Your task to perform on an android device: What's the weather going to be tomorrow? Image 0: 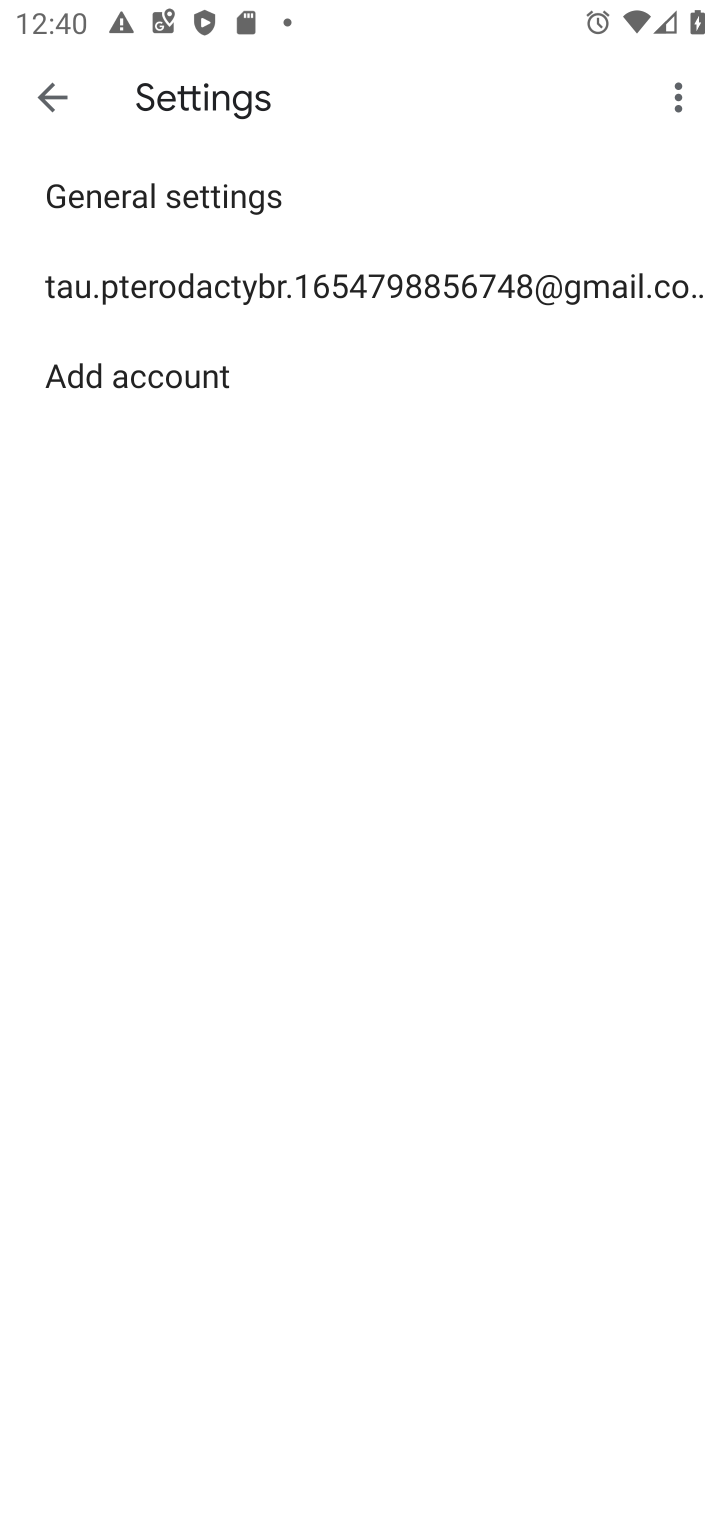
Step 0: press home button
Your task to perform on an android device: What's the weather going to be tomorrow? Image 1: 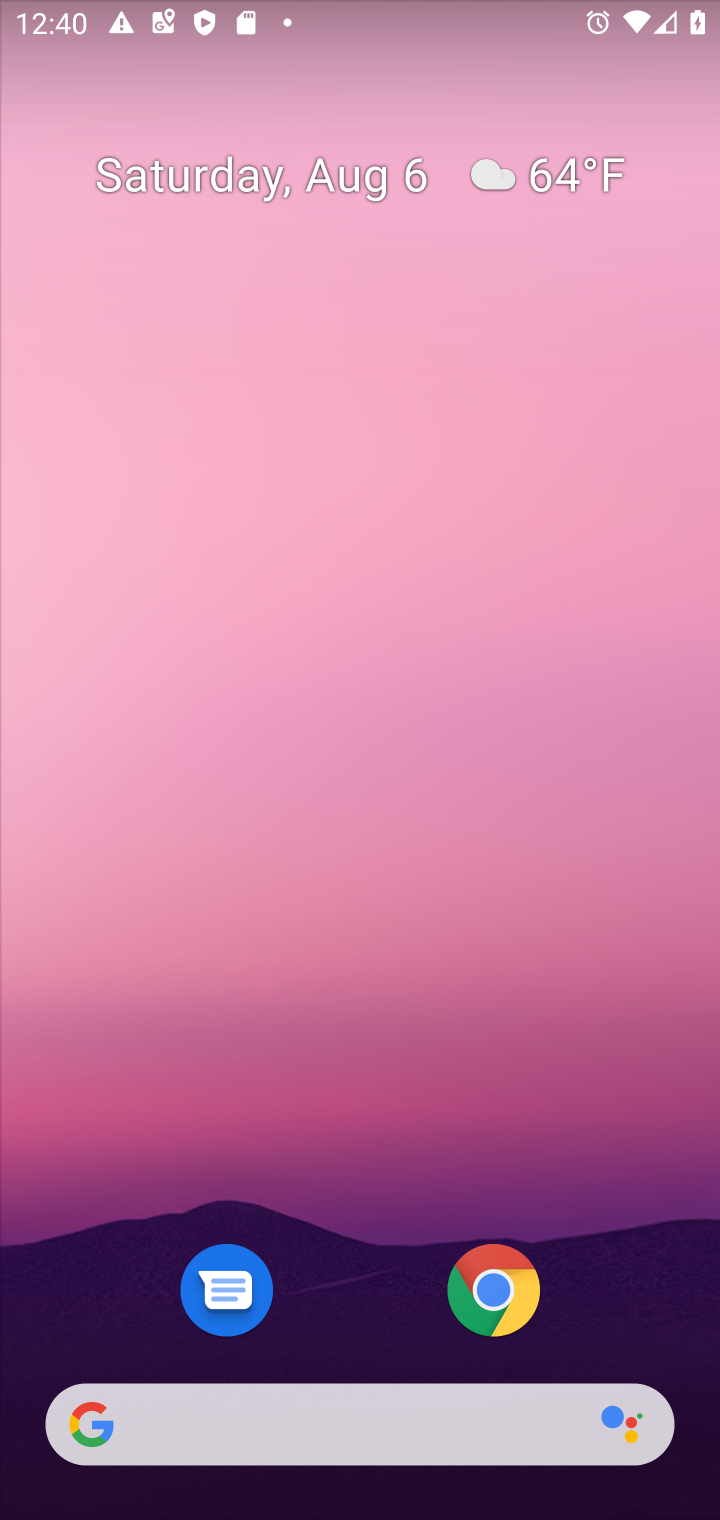
Step 1: drag from (364, 1336) to (418, 174)
Your task to perform on an android device: What's the weather going to be tomorrow? Image 2: 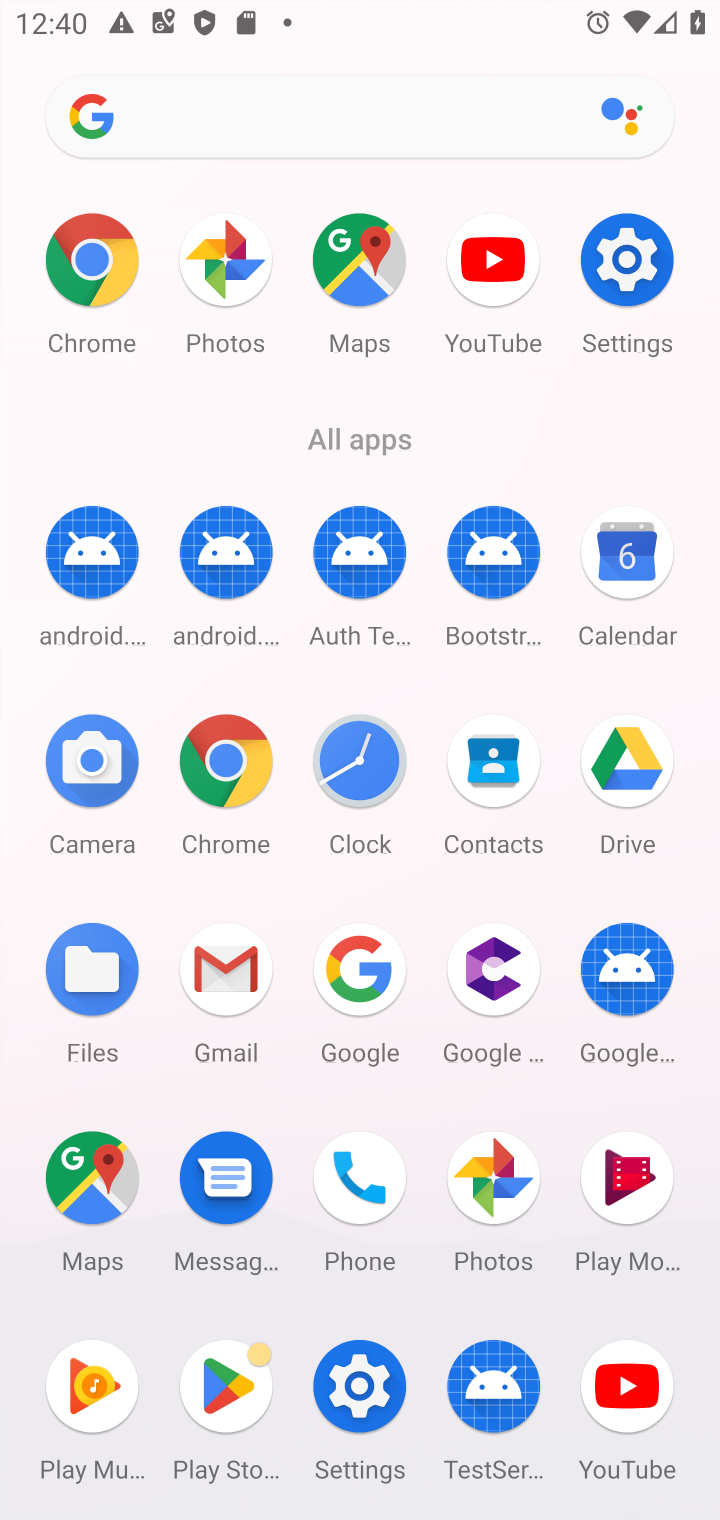
Step 2: press home button
Your task to perform on an android device: What's the weather going to be tomorrow? Image 3: 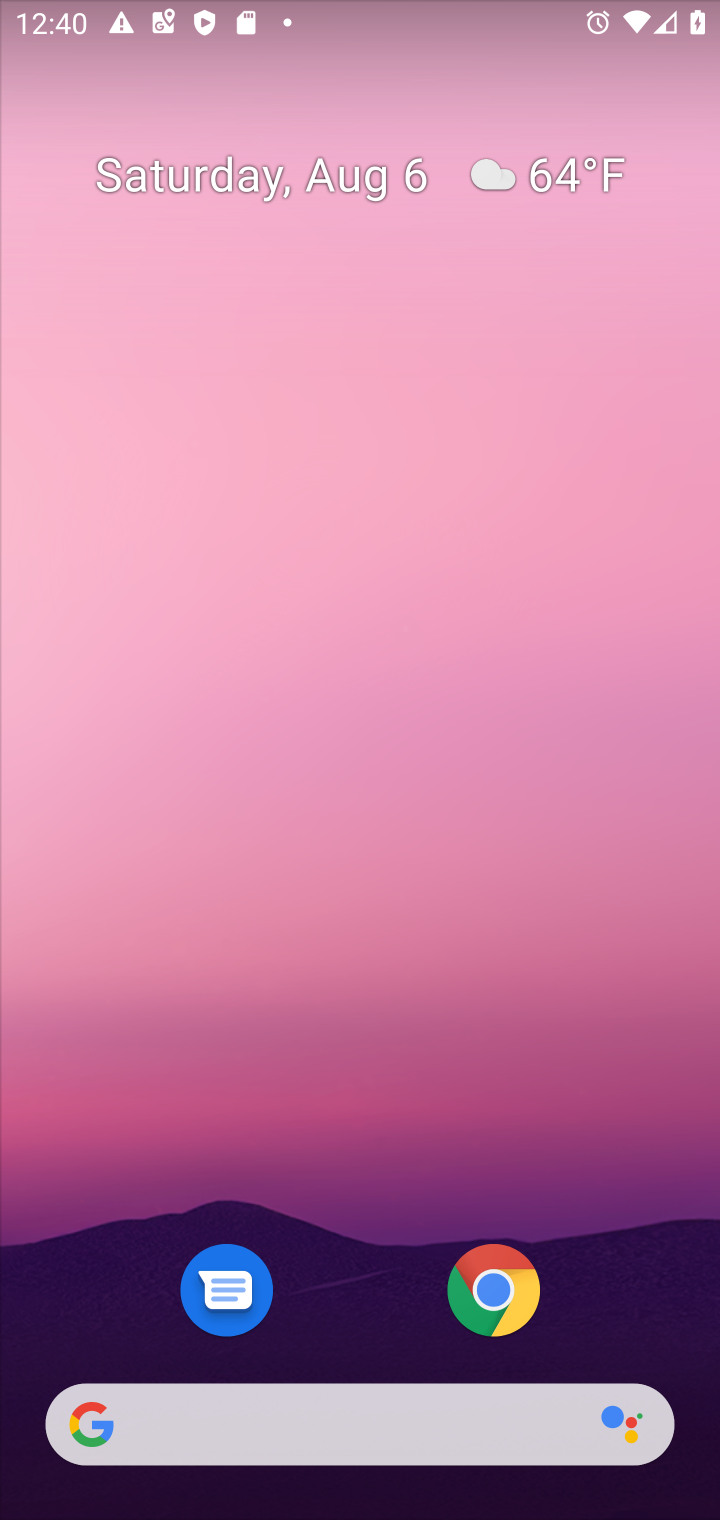
Step 3: click (541, 169)
Your task to perform on an android device: What's the weather going to be tomorrow? Image 4: 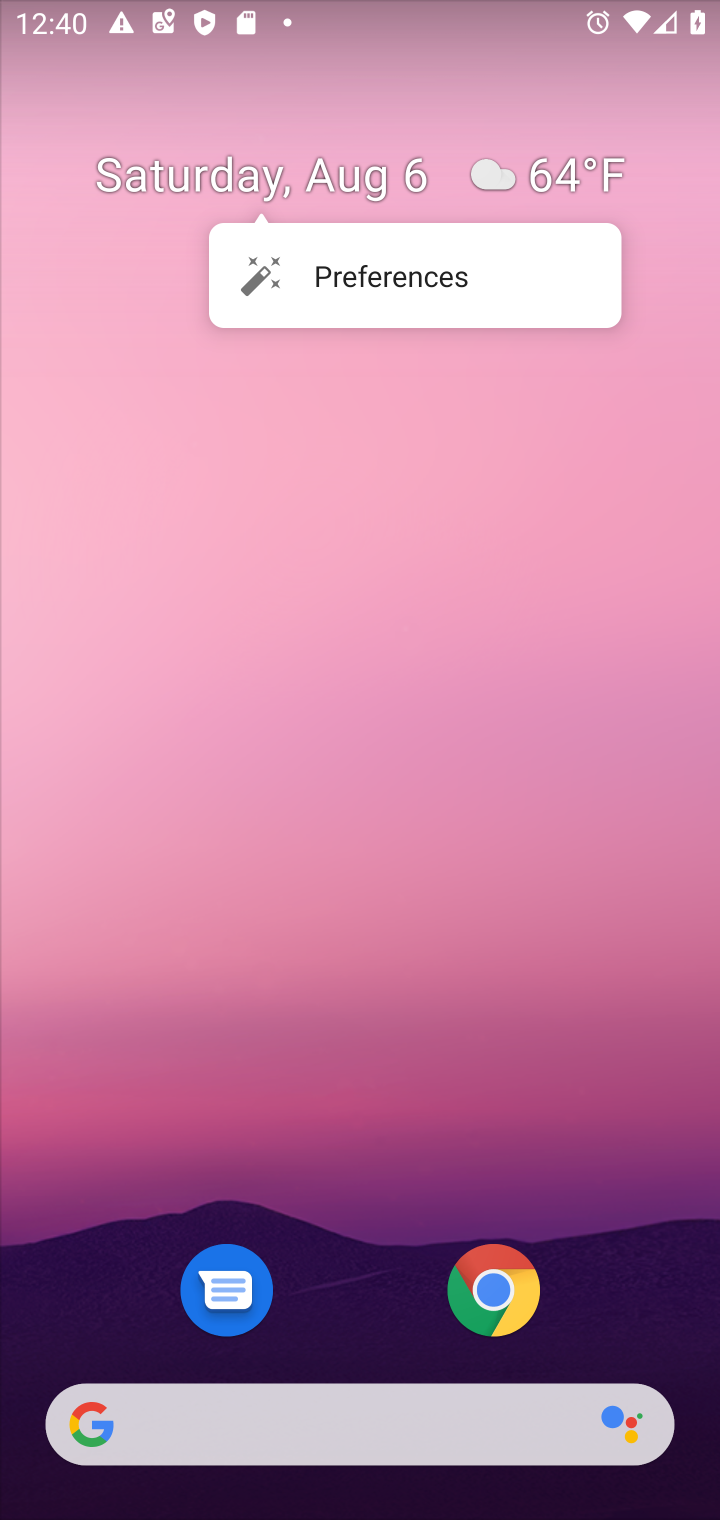
Step 4: click (566, 165)
Your task to perform on an android device: What's the weather going to be tomorrow? Image 5: 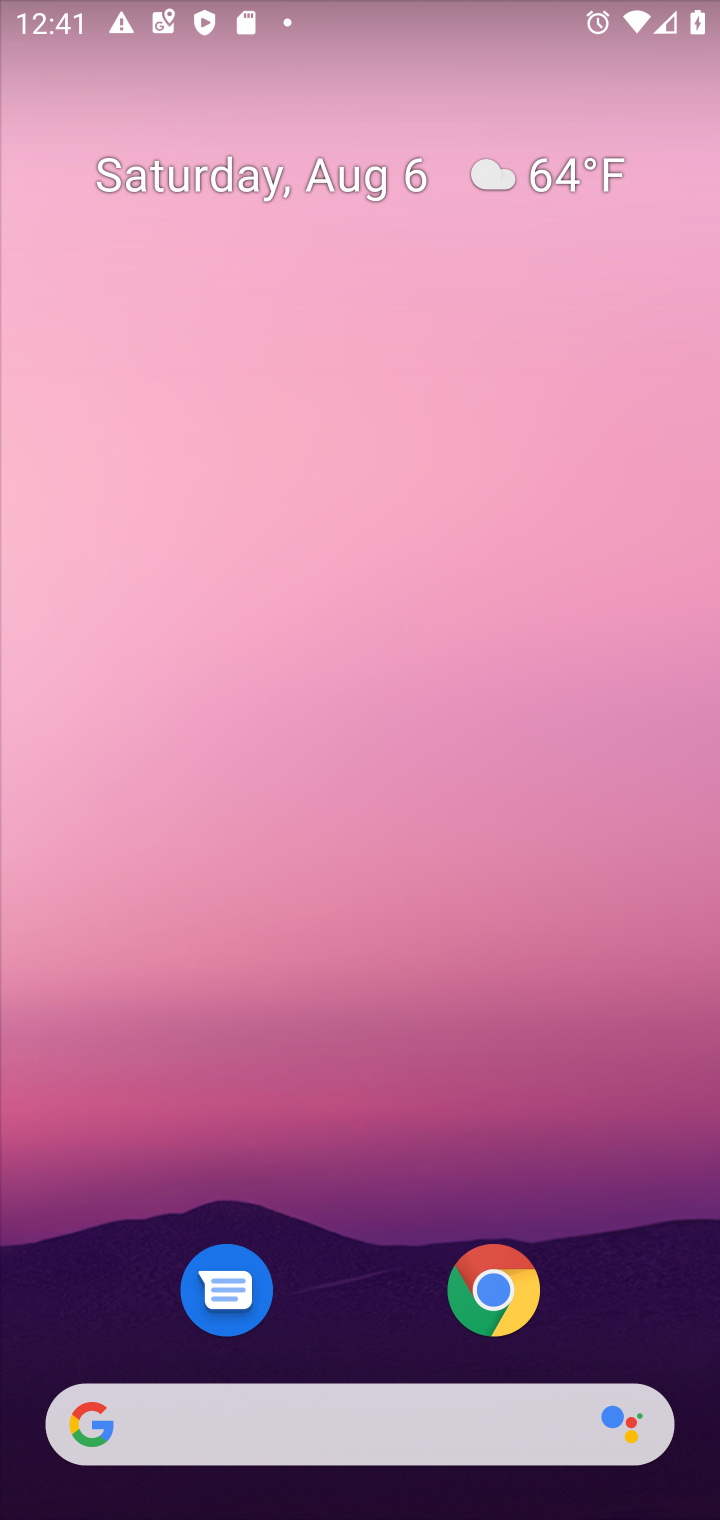
Step 5: drag from (390, 1335) to (426, 75)
Your task to perform on an android device: What's the weather going to be tomorrow? Image 6: 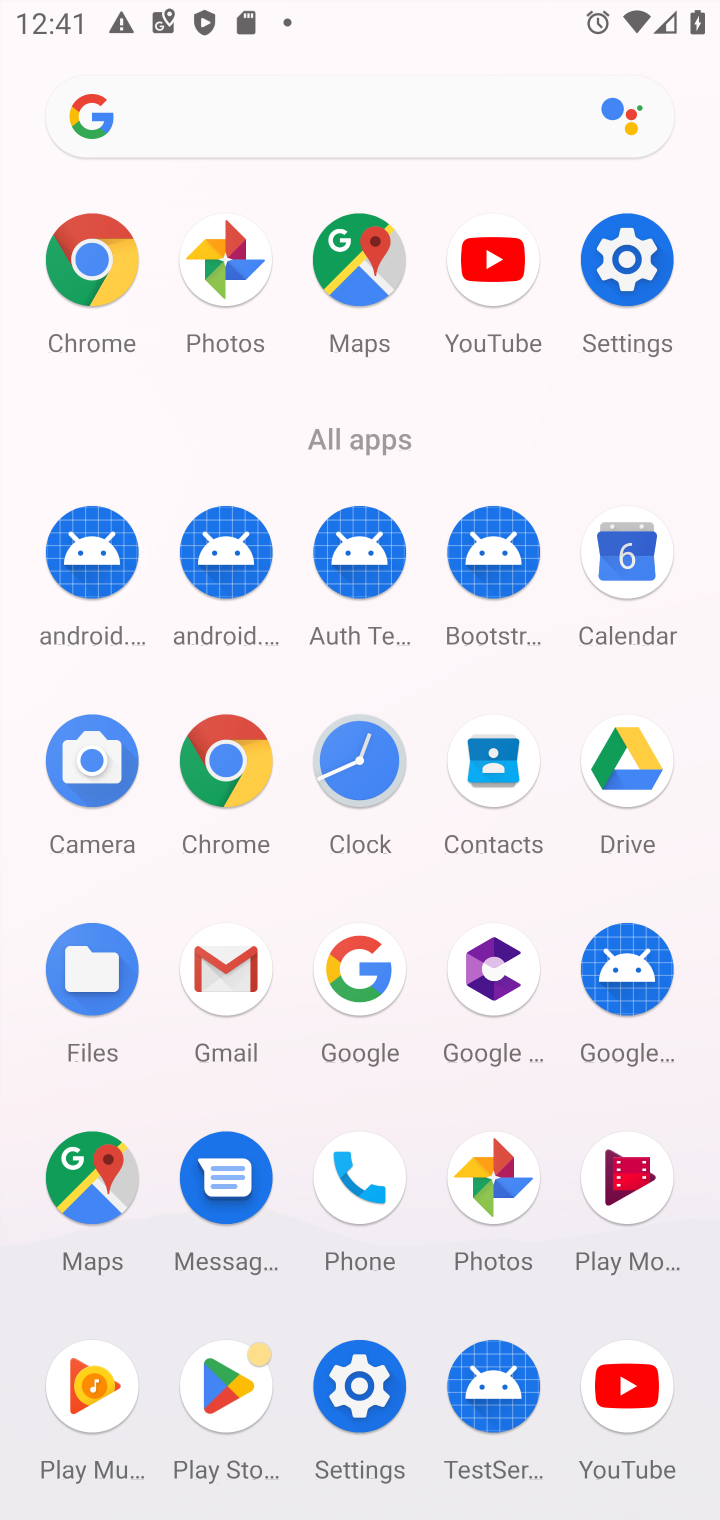
Step 6: press home button
Your task to perform on an android device: What's the weather going to be tomorrow? Image 7: 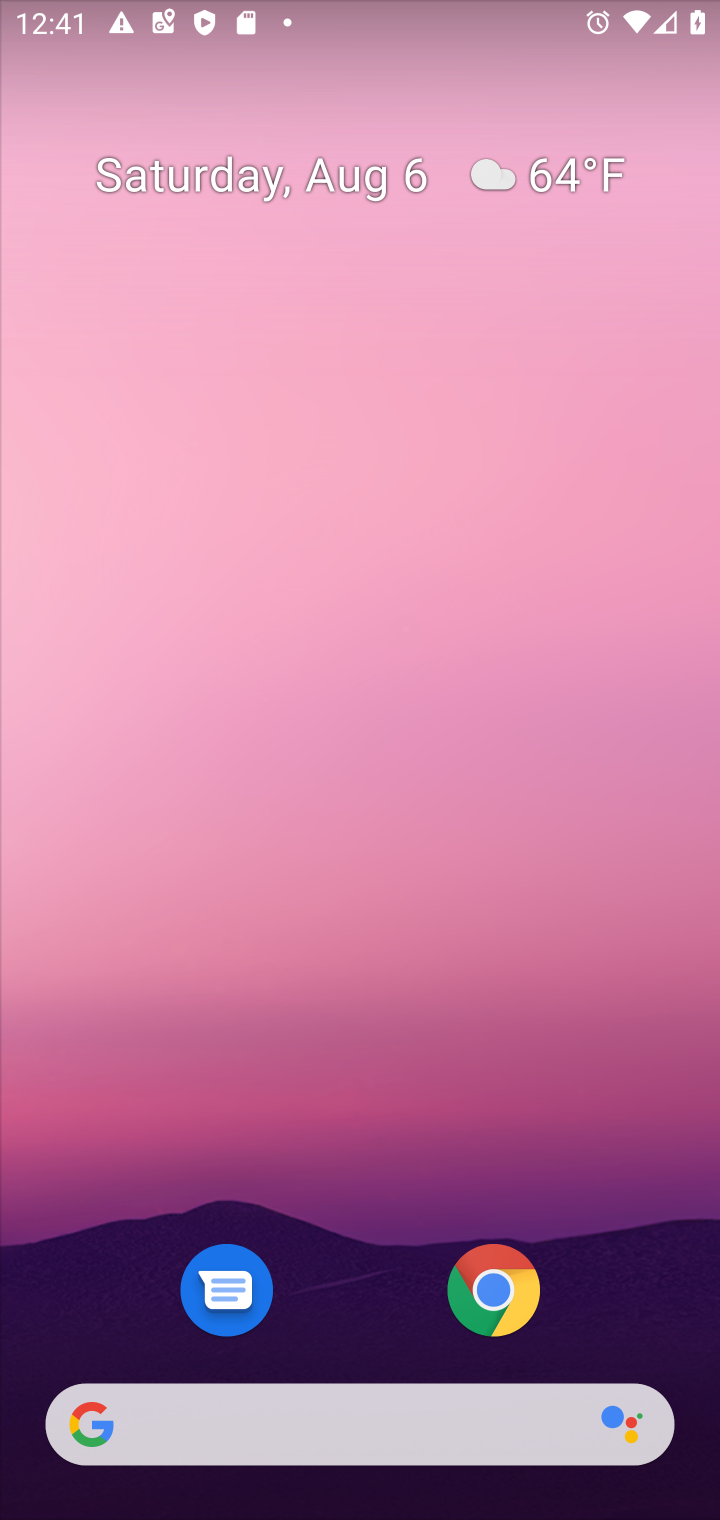
Step 7: click (572, 164)
Your task to perform on an android device: What's the weather going to be tomorrow? Image 8: 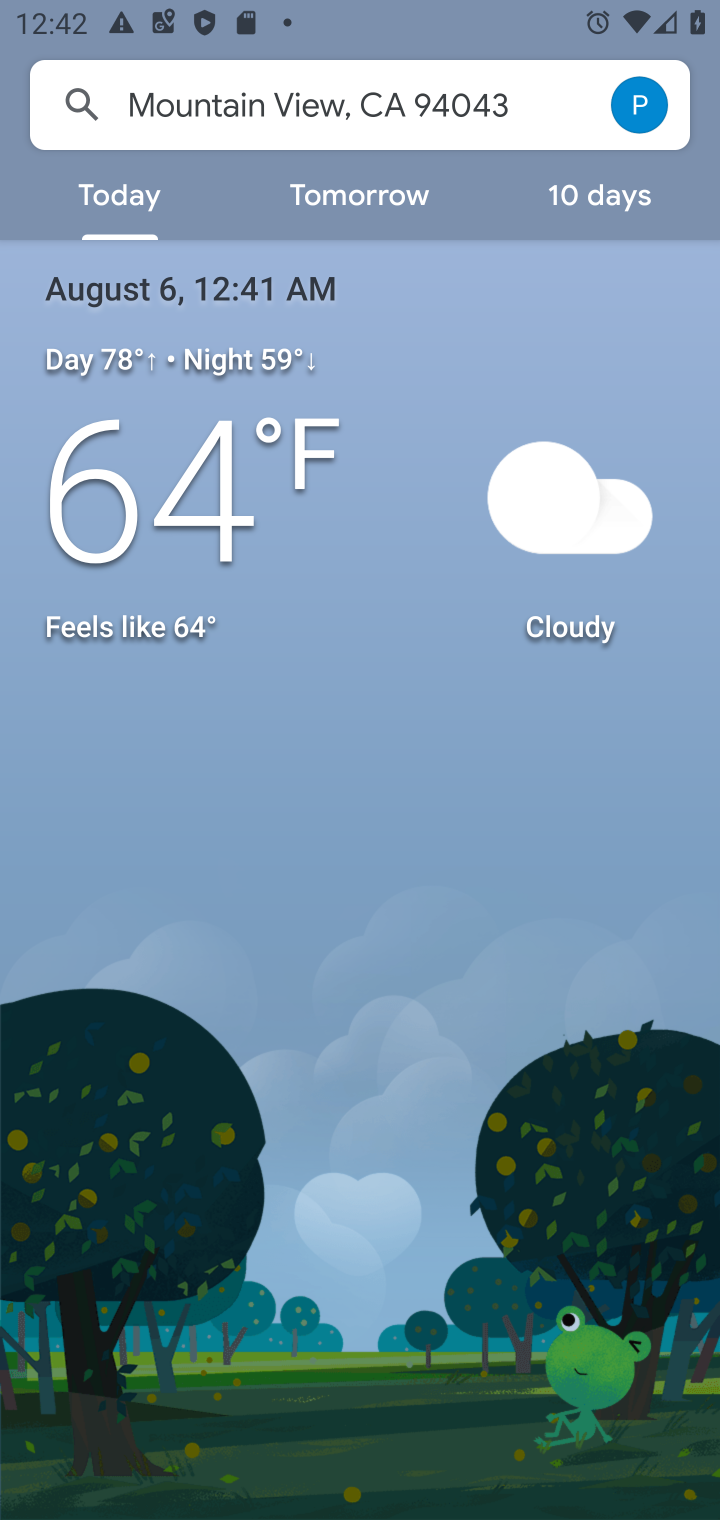
Step 8: click (355, 200)
Your task to perform on an android device: What's the weather going to be tomorrow? Image 9: 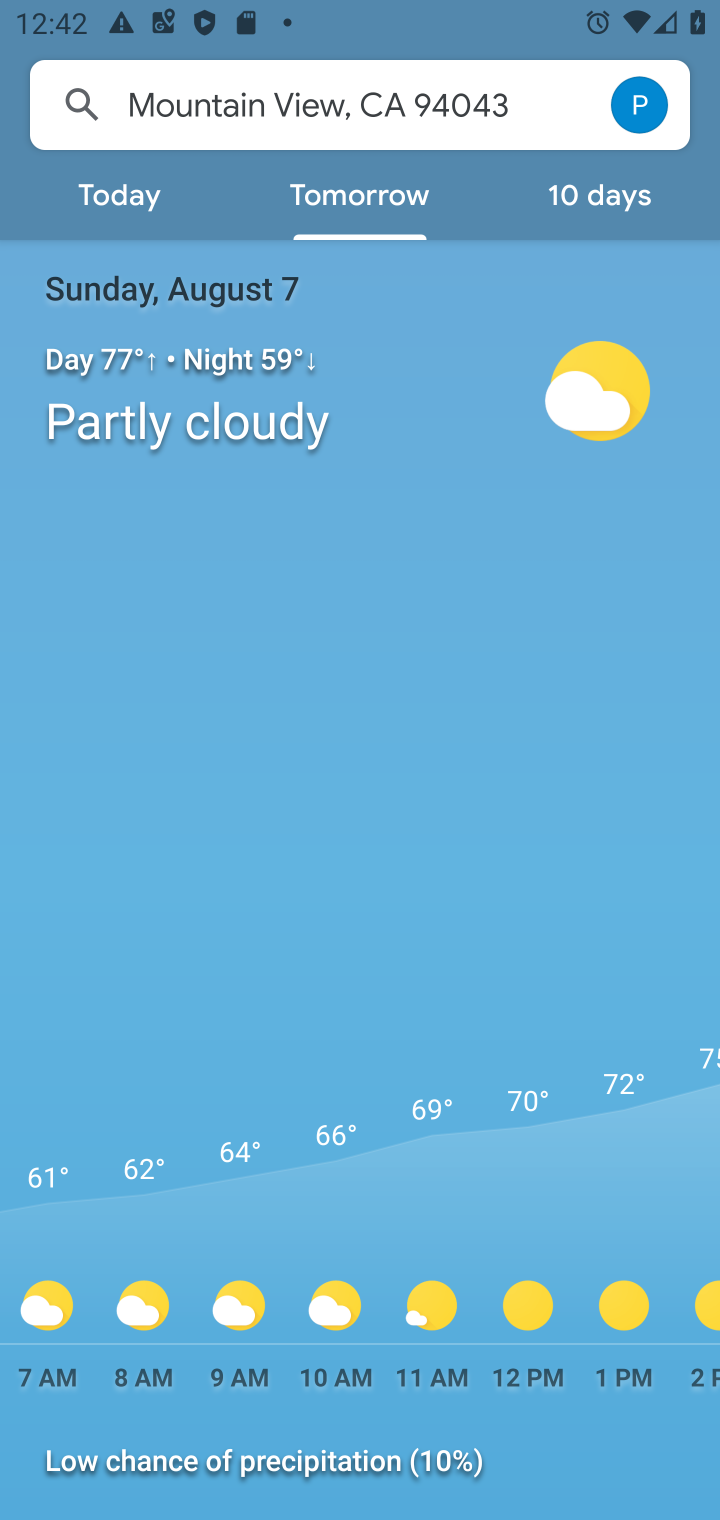
Step 9: drag from (627, 1306) to (75, 1298)
Your task to perform on an android device: What's the weather going to be tomorrow? Image 10: 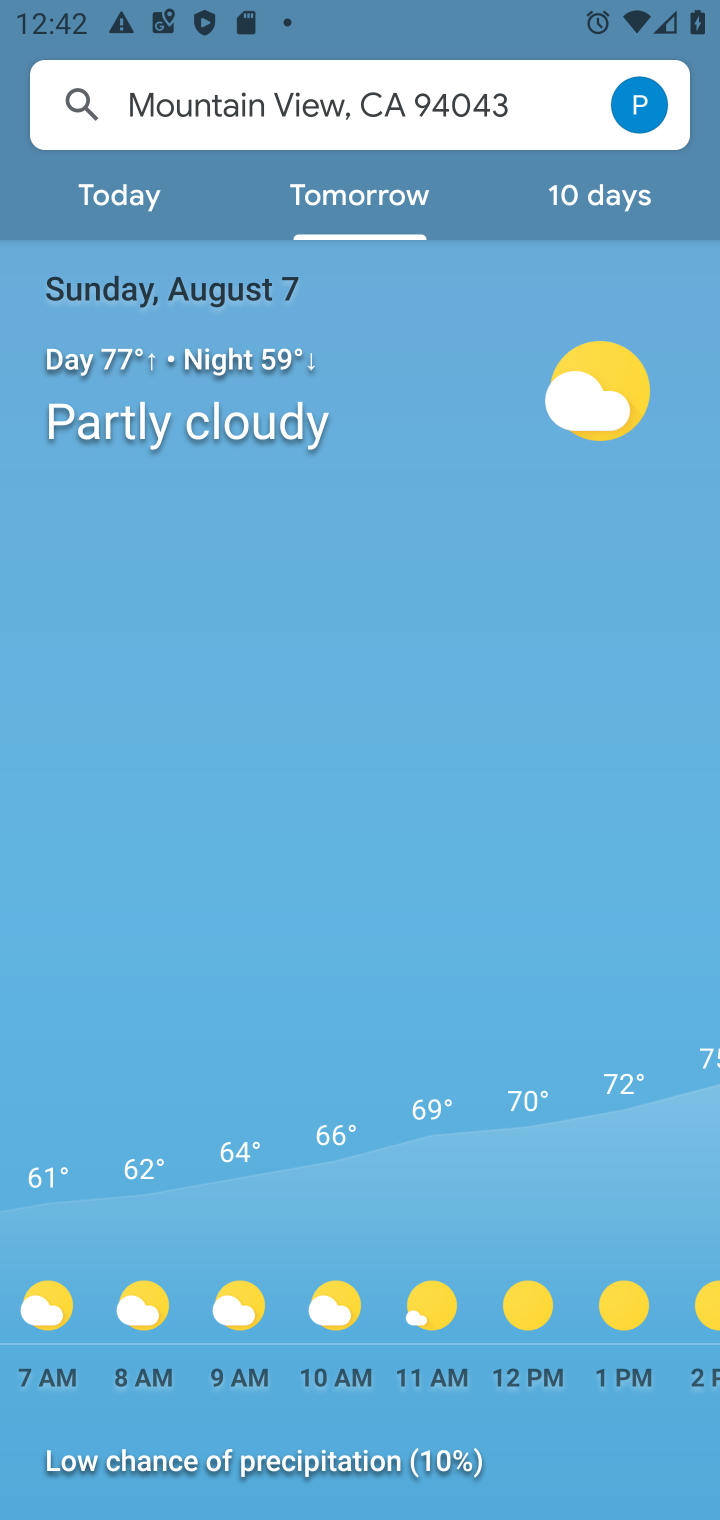
Step 10: drag from (612, 1311) to (712, 1319)
Your task to perform on an android device: What's the weather going to be tomorrow? Image 11: 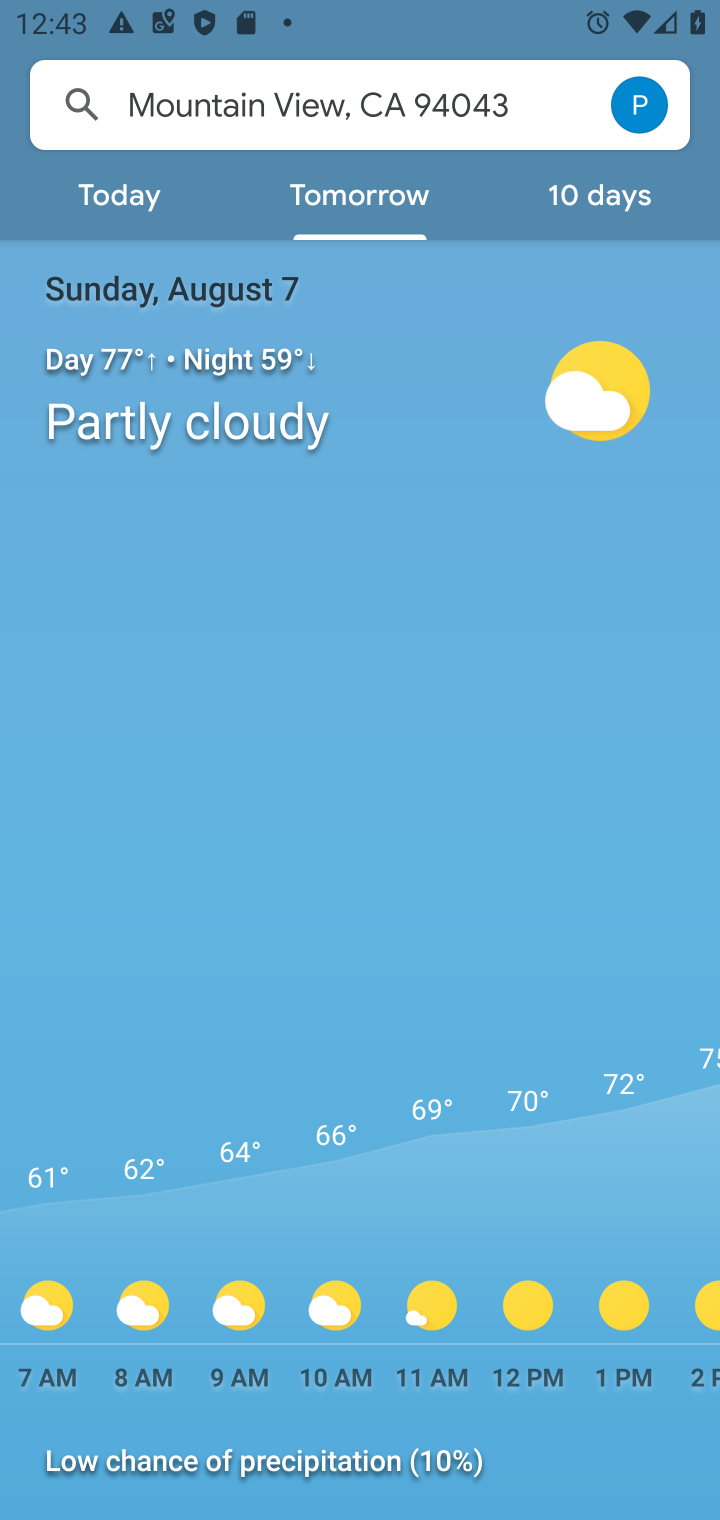
Step 11: drag from (646, 1368) to (236, 1381)
Your task to perform on an android device: What's the weather going to be tomorrow? Image 12: 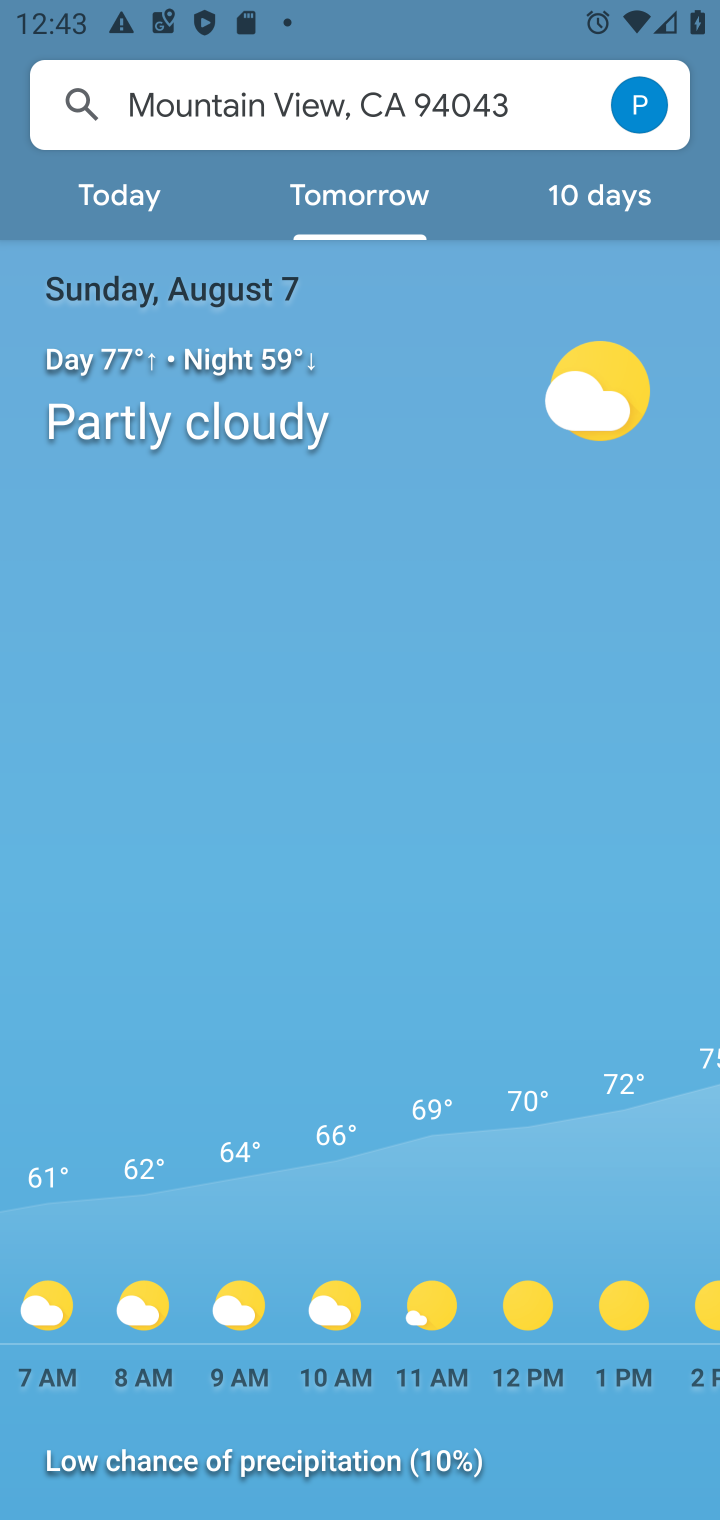
Step 12: click (623, 1308)
Your task to perform on an android device: What's the weather going to be tomorrow? Image 13: 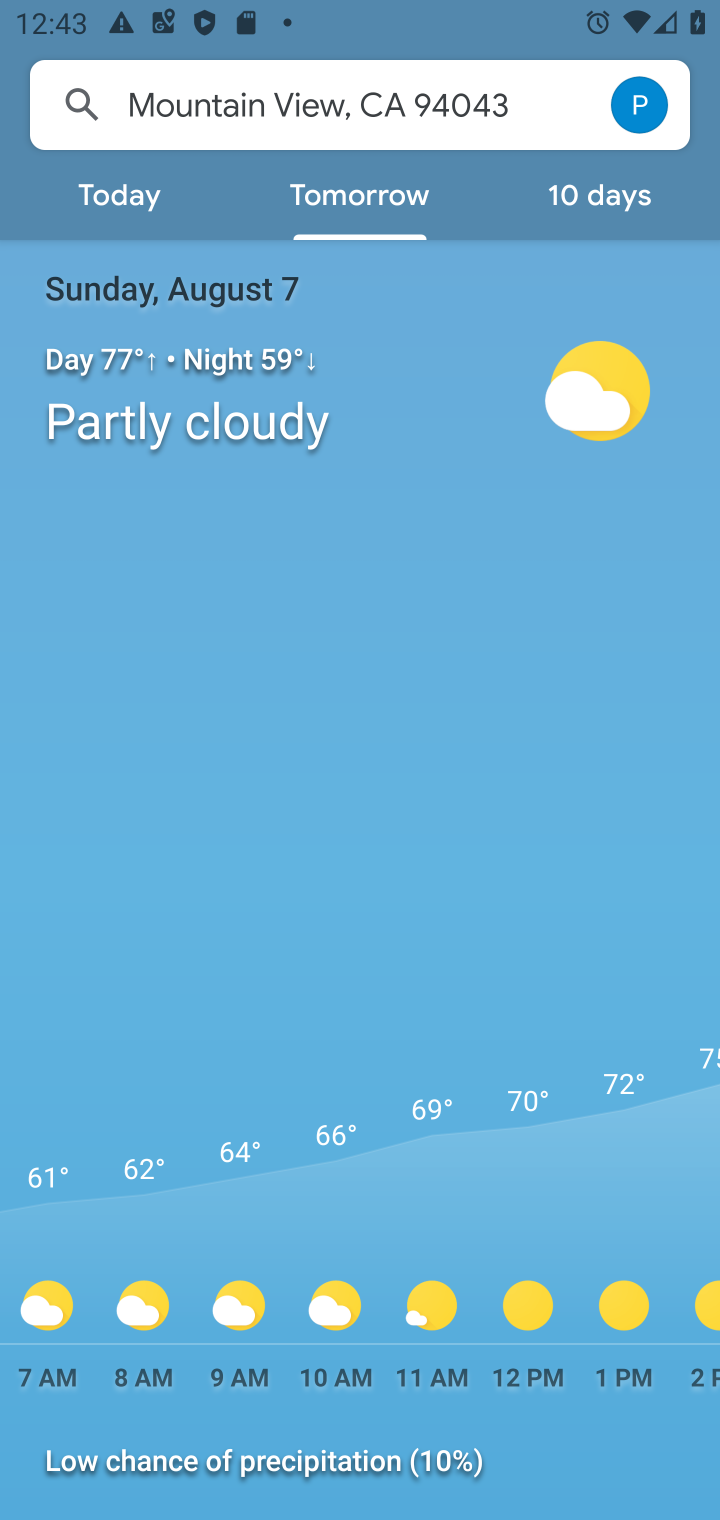
Step 13: task complete